Your task to perform on an android device: Go to Maps Image 0: 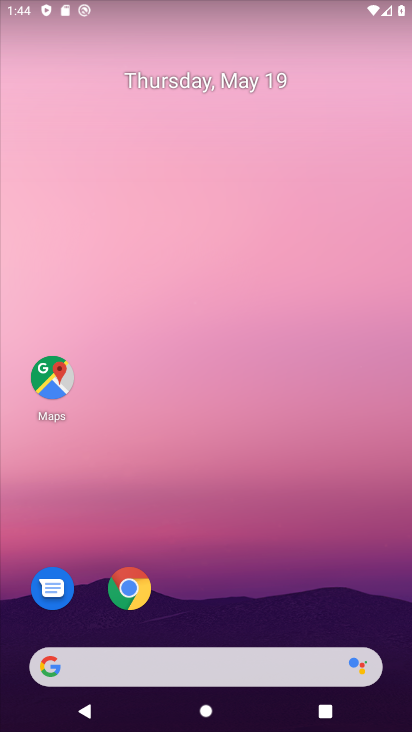
Step 0: click (51, 376)
Your task to perform on an android device: Go to Maps Image 1: 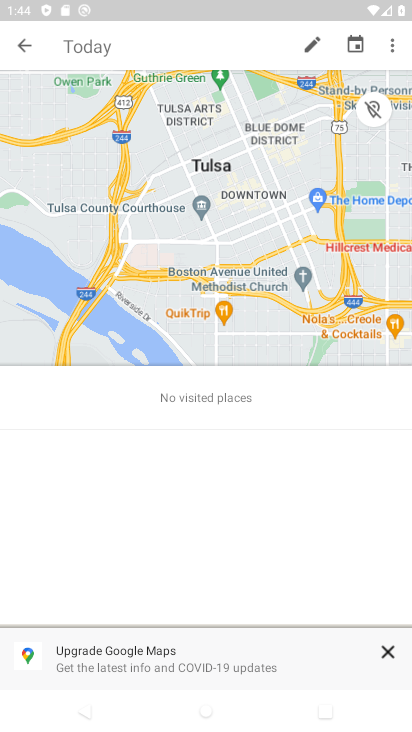
Step 1: task complete